Your task to perform on an android device: Show me productivity apps on the Play Store Image 0: 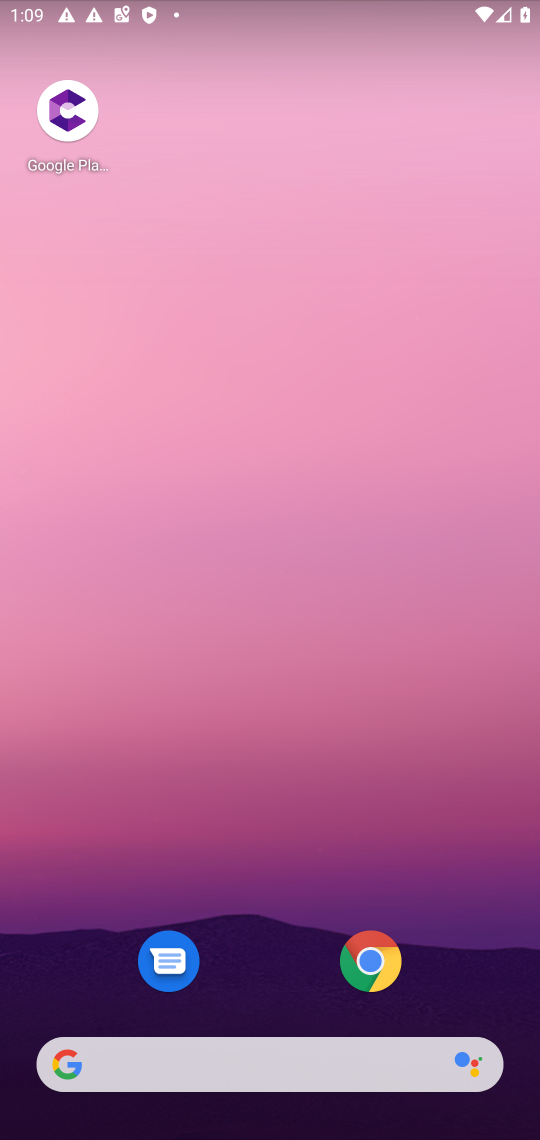
Step 0: drag from (448, 1022) to (10, 248)
Your task to perform on an android device: Show me productivity apps on the Play Store Image 1: 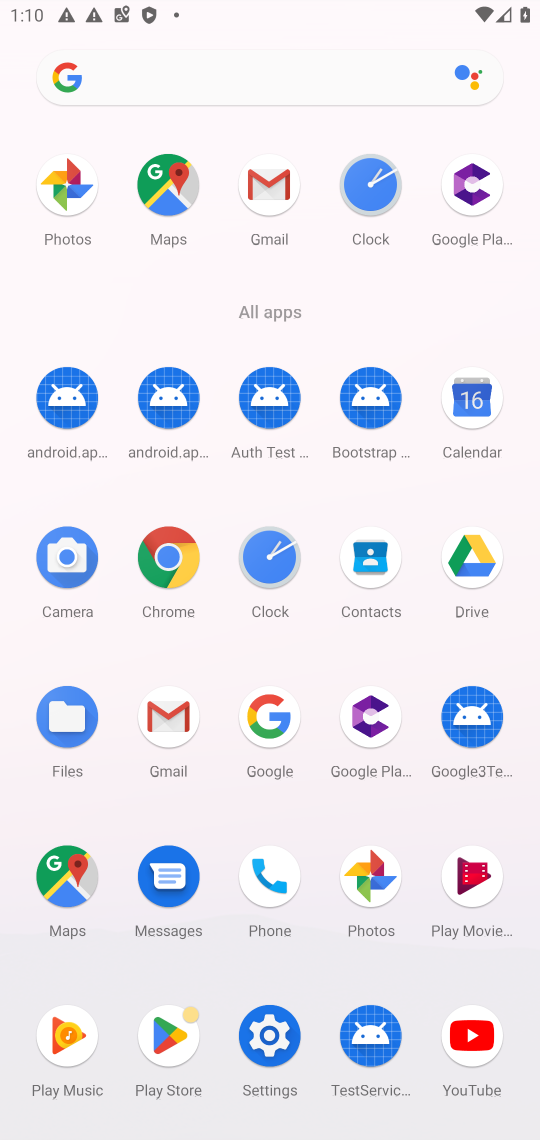
Step 1: click (191, 1035)
Your task to perform on an android device: Show me productivity apps on the Play Store Image 2: 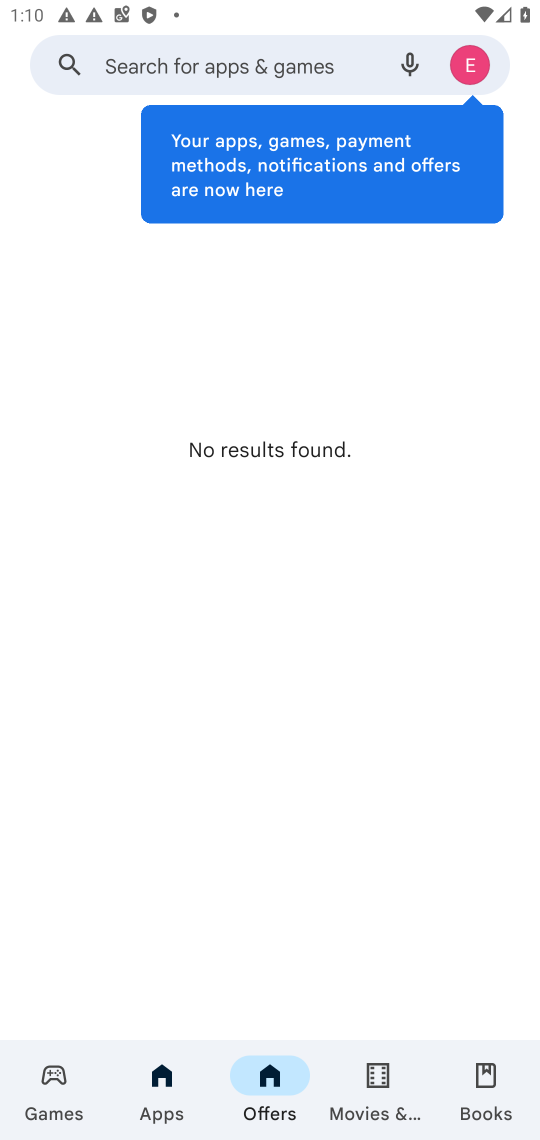
Step 2: task complete